Your task to perform on an android device: uninstall "DuckDuckGo Privacy Browser" Image 0: 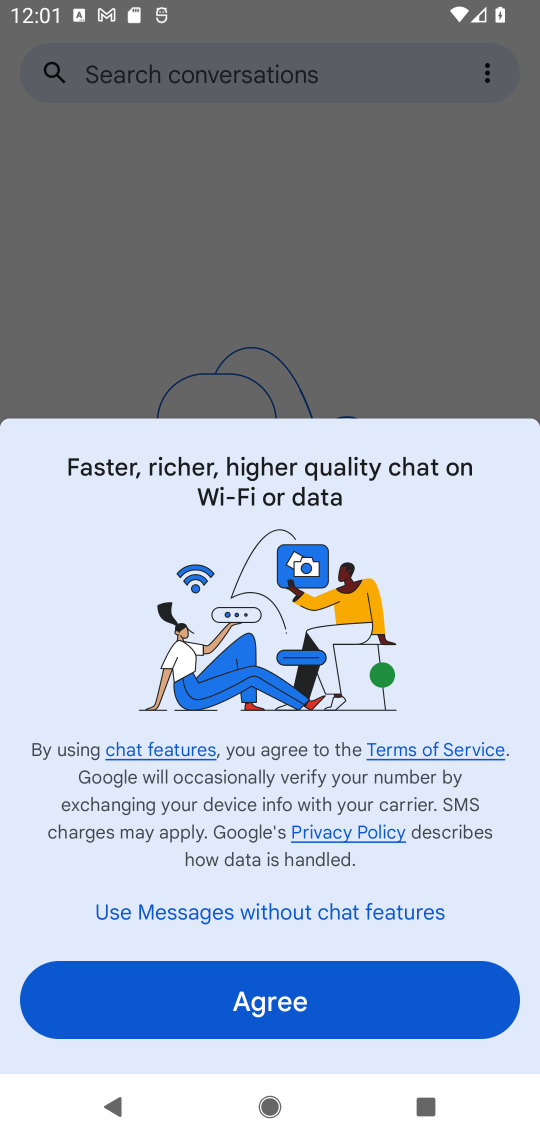
Step 0: press home button
Your task to perform on an android device: uninstall "DuckDuckGo Privacy Browser" Image 1: 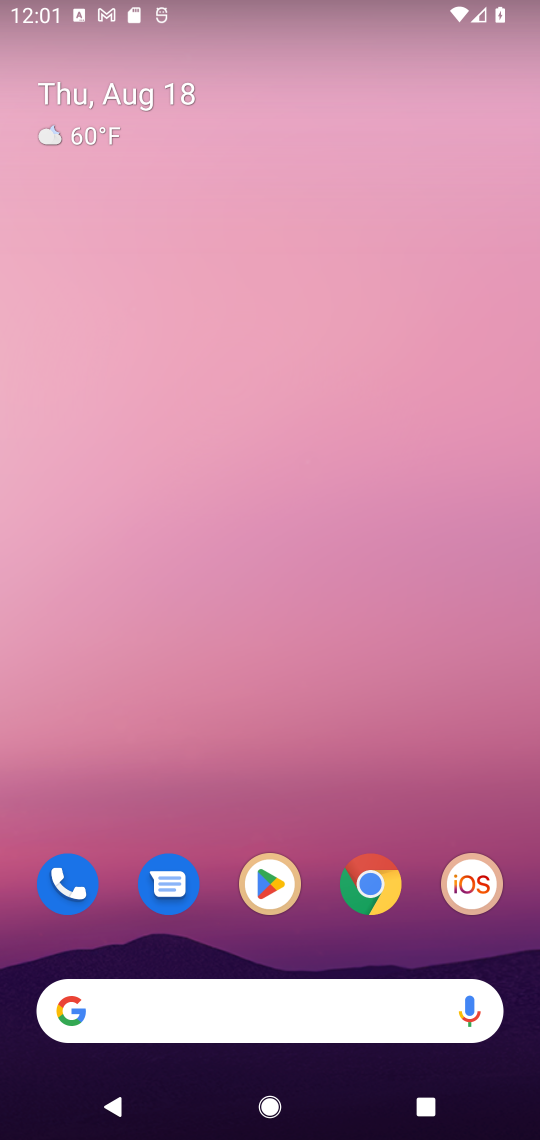
Step 1: drag from (257, 1032) to (316, 75)
Your task to perform on an android device: uninstall "DuckDuckGo Privacy Browser" Image 2: 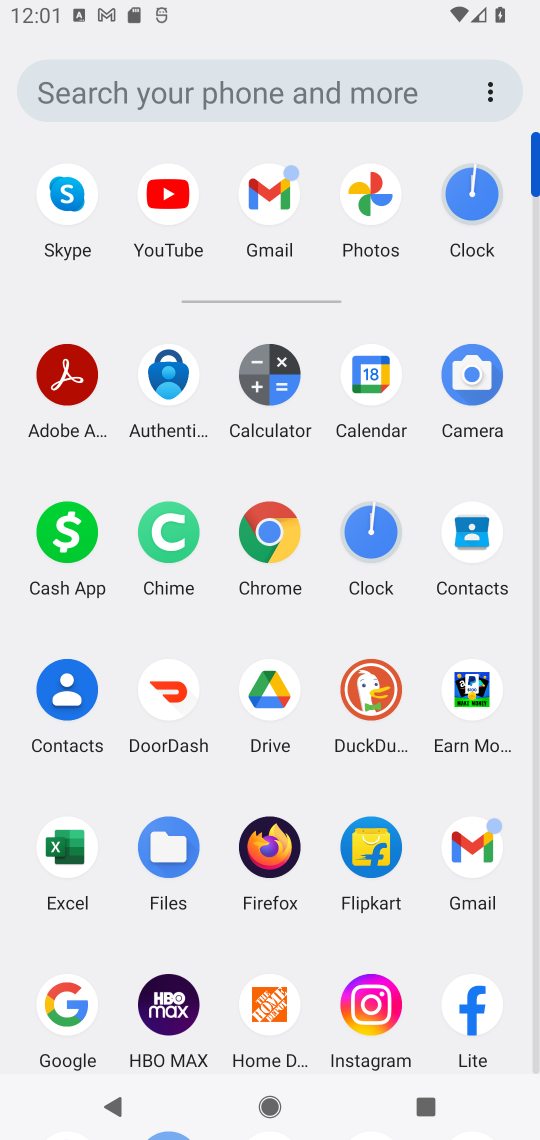
Step 2: drag from (300, 778) to (301, 279)
Your task to perform on an android device: uninstall "DuckDuckGo Privacy Browser" Image 3: 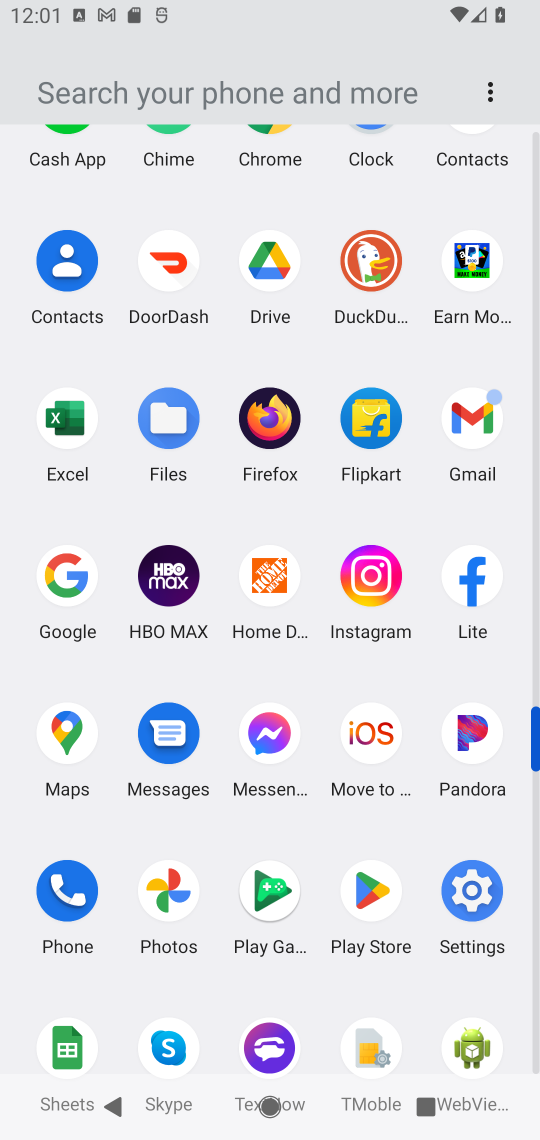
Step 3: click (375, 899)
Your task to perform on an android device: uninstall "DuckDuckGo Privacy Browser" Image 4: 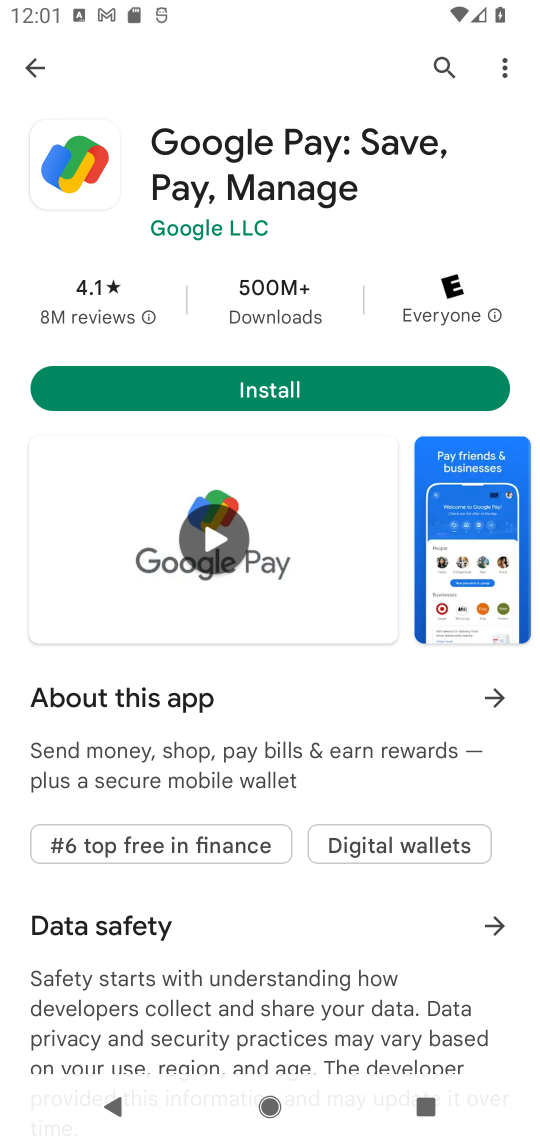
Step 4: press back button
Your task to perform on an android device: uninstall "DuckDuckGo Privacy Browser" Image 5: 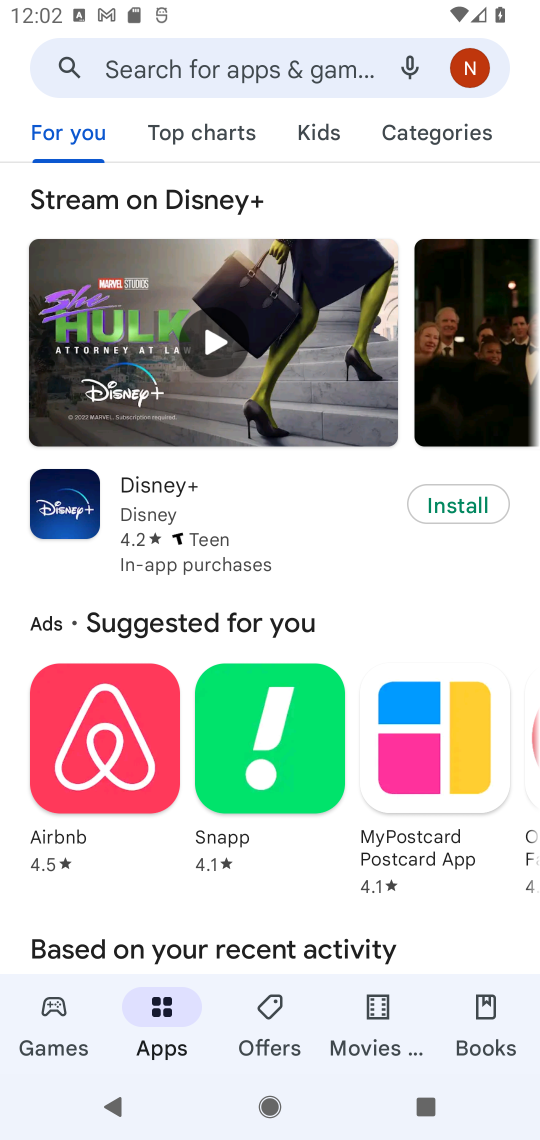
Step 5: click (255, 70)
Your task to perform on an android device: uninstall "DuckDuckGo Privacy Browser" Image 6: 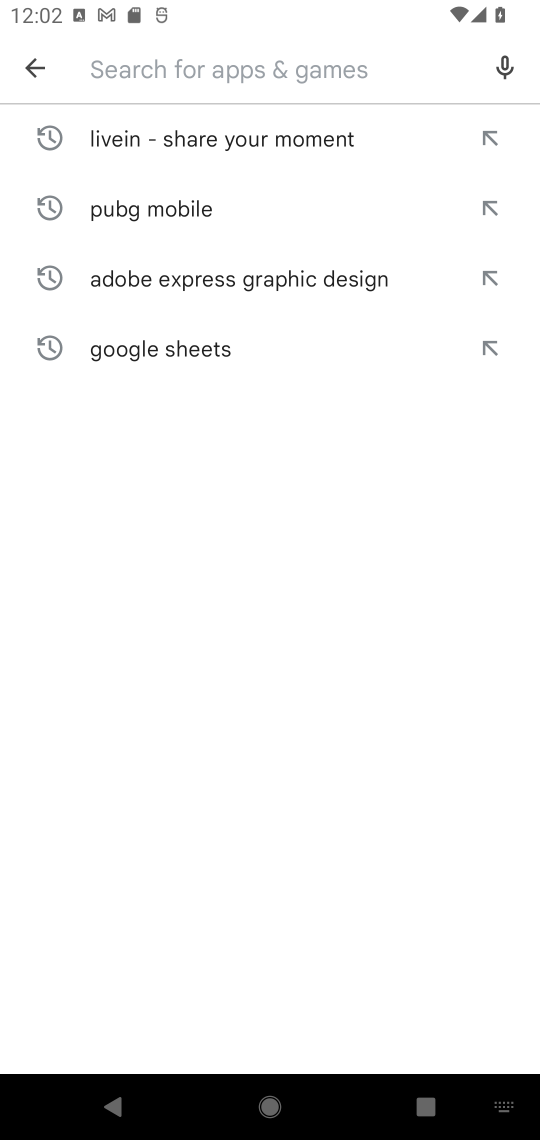
Step 6: click (236, 81)
Your task to perform on an android device: uninstall "DuckDuckGo Privacy Browser" Image 7: 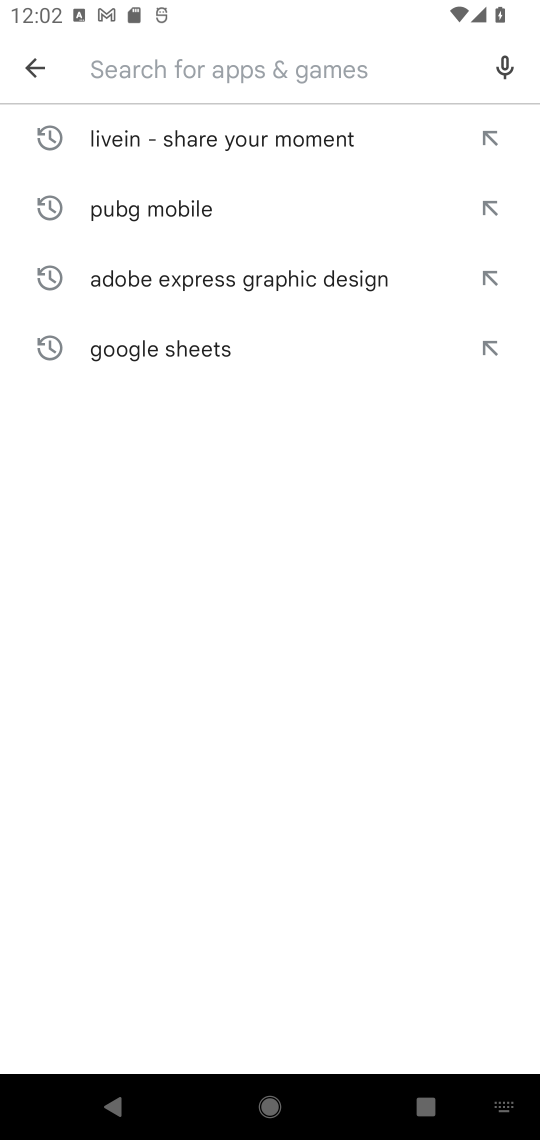
Step 7: type "DuckDuckGo Privacy Browser"
Your task to perform on an android device: uninstall "DuckDuckGo Privacy Browser" Image 8: 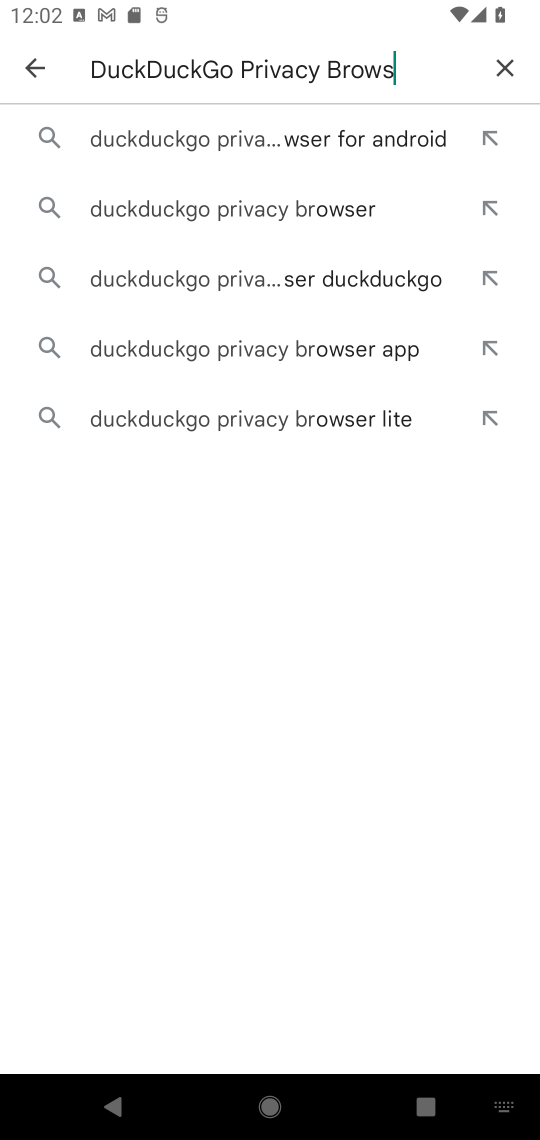
Step 8: type ""
Your task to perform on an android device: uninstall "DuckDuckGo Privacy Browser" Image 9: 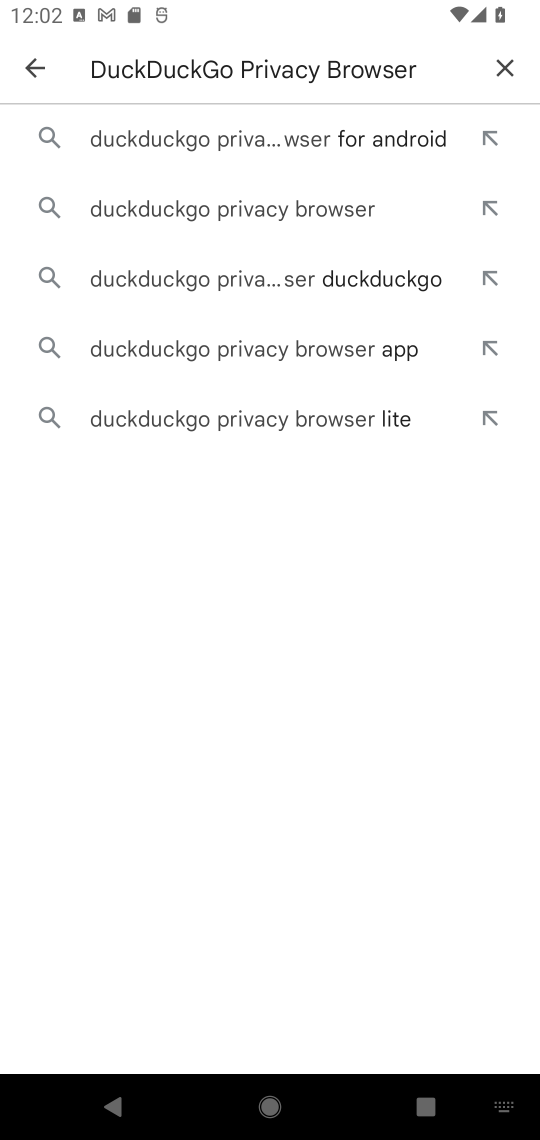
Step 9: click (258, 219)
Your task to perform on an android device: uninstall "DuckDuckGo Privacy Browser" Image 10: 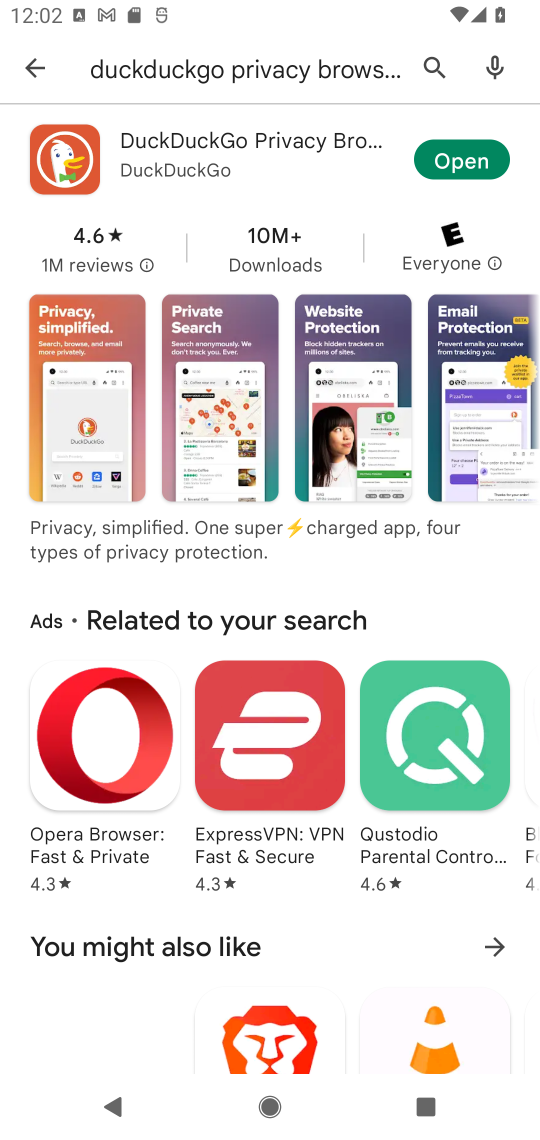
Step 10: click (240, 143)
Your task to perform on an android device: uninstall "DuckDuckGo Privacy Browser" Image 11: 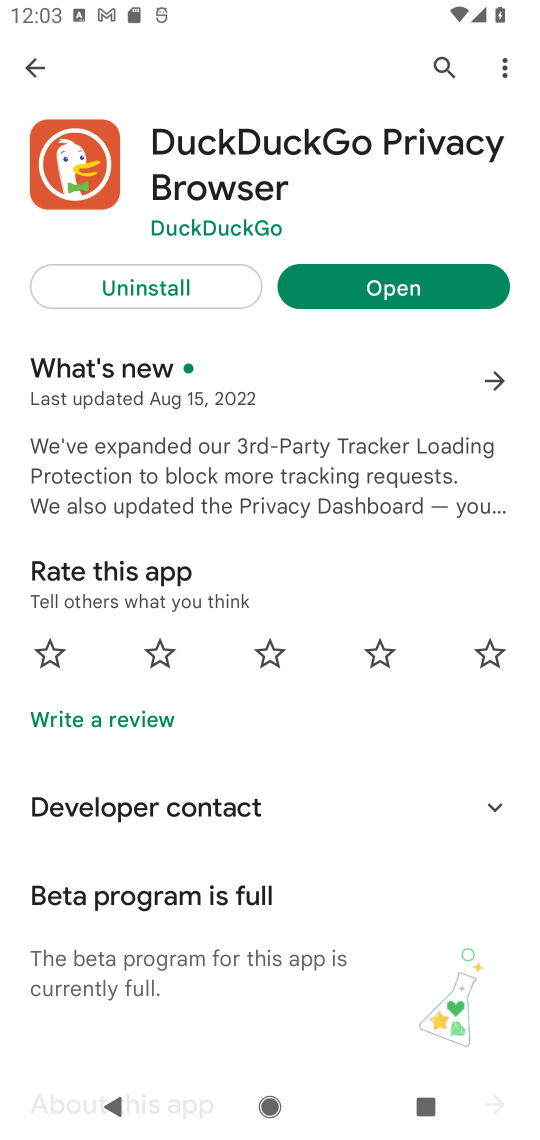
Step 11: click (136, 295)
Your task to perform on an android device: uninstall "DuckDuckGo Privacy Browser" Image 12: 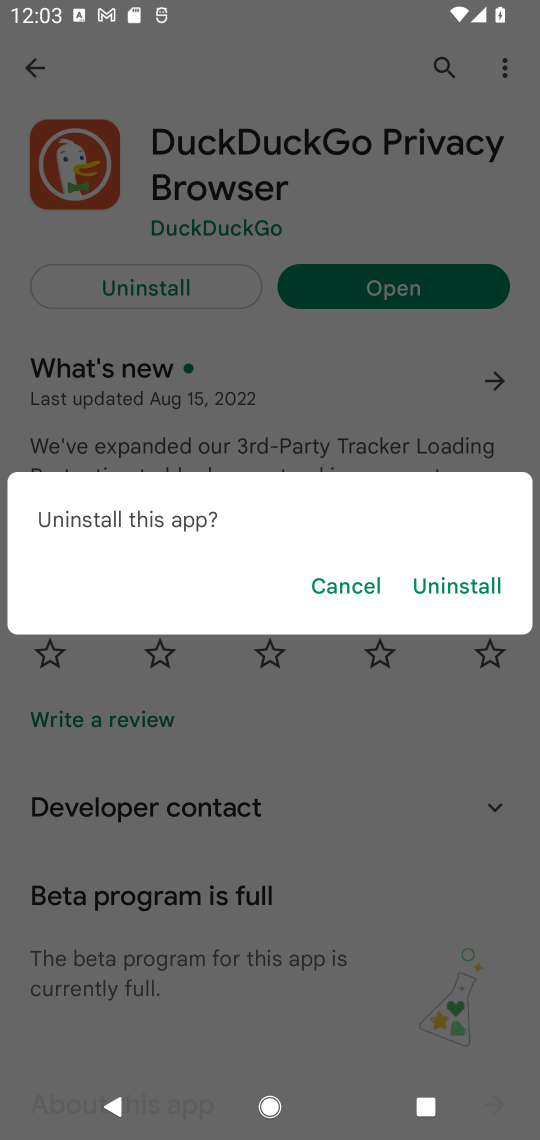
Step 12: click (470, 588)
Your task to perform on an android device: uninstall "DuckDuckGo Privacy Browser" Image 13: 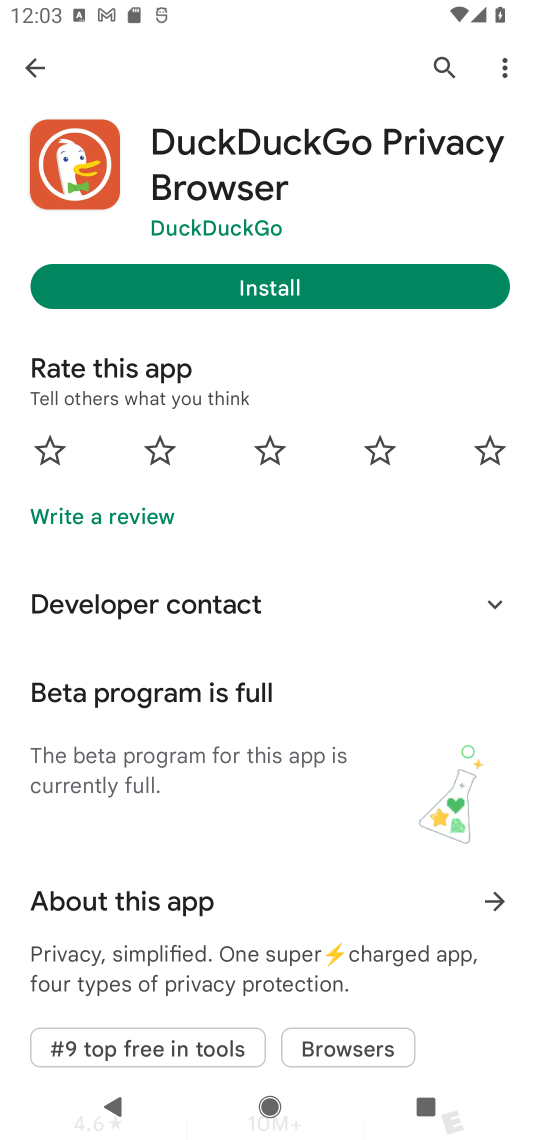
Step 13: task complete